Your task to perform on an android device: delete browsing data in the chrome app Image 0: 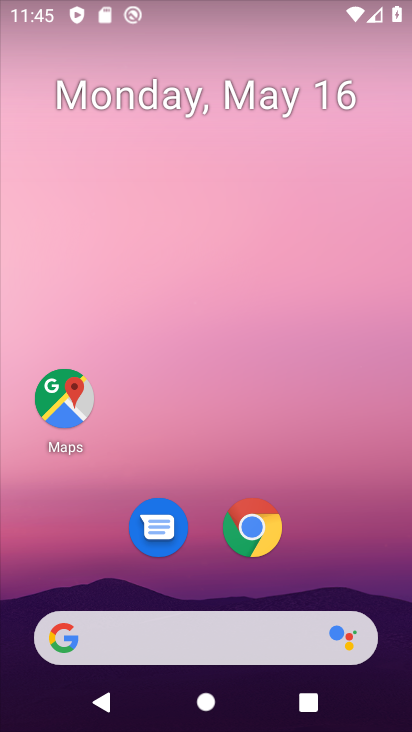
Step 0: click (251, 544)
Your task to perform on an android device: delete browsing data in the chrome app Image 1: 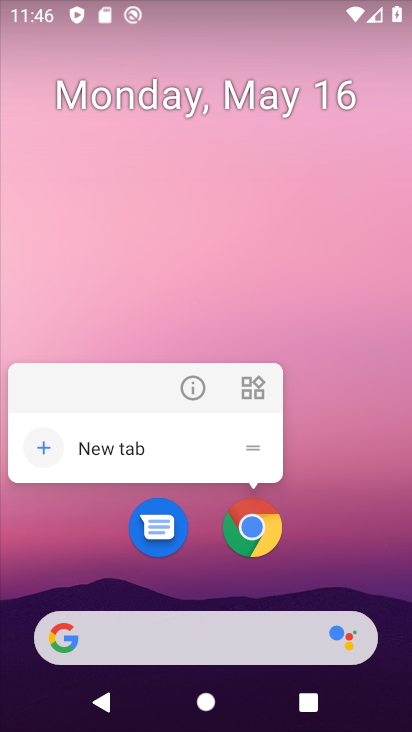
Step 1: click (251, 542)
Your task to perform on an android device: delete browsing data in the chrome app Image 2: 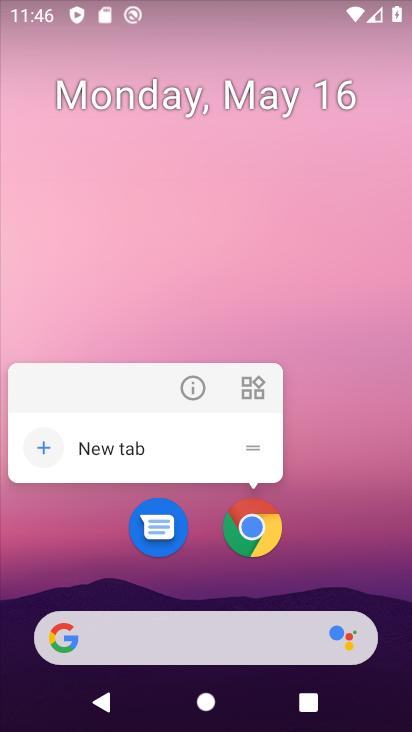
Step 2: click (251, 541)
Your task to perform on an android device: delete browsing data in the chrome app Image 3: 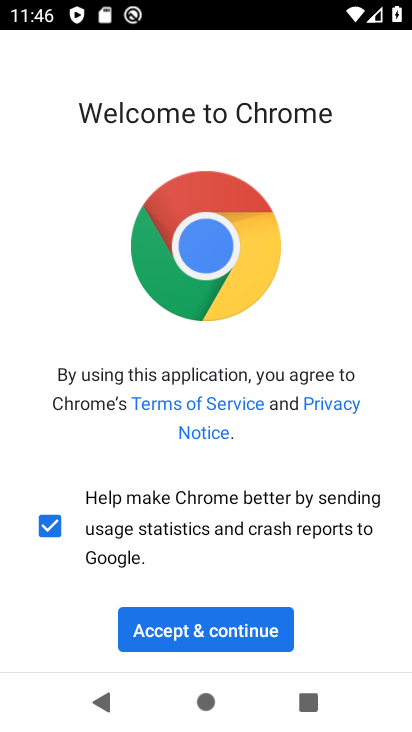
Step 3: click (252, 642)
Your task to perform on an android device: delete browsing data in the chrome app Image 4: 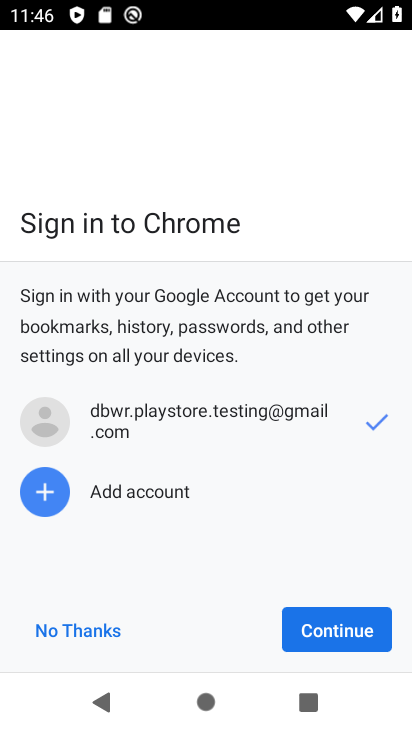
Step 4: click (323, 622)
Your task to perform on an android device: delete browsing data in the chrome app Image 5: 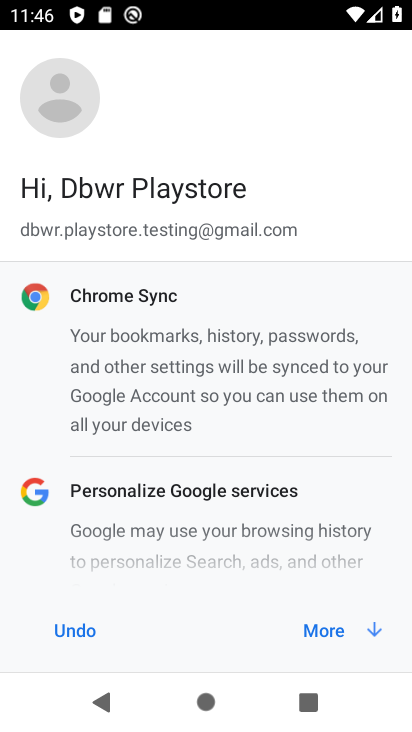
Step 5: click (338, 629)
Your task to perform on an android device: delete browsing data in the chrome app Image 6: 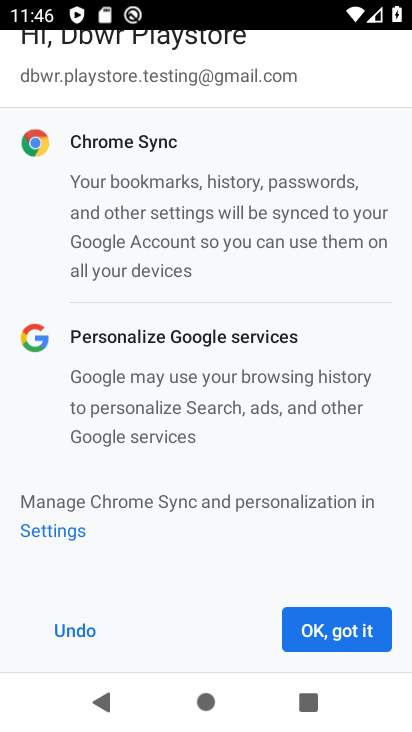
Step 6: click (338, 629)
Your task to perform on an android device: delete browsing data in the chrome app Image 7: 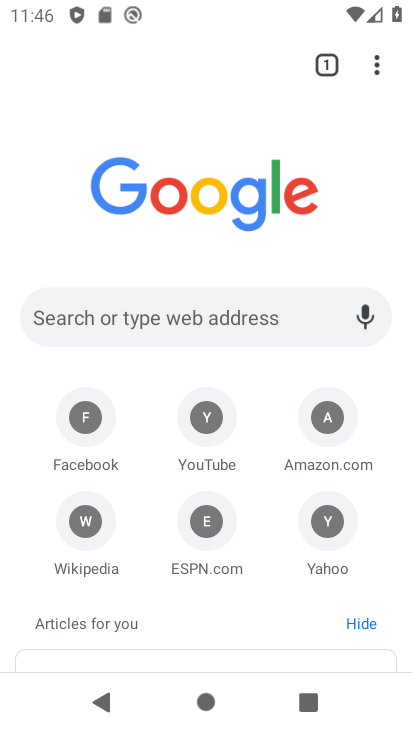
Step 7: drag from (387, 57) to (259, 564)
Your task to perform on an android device: delete browsing data in the chrome app Image 8: 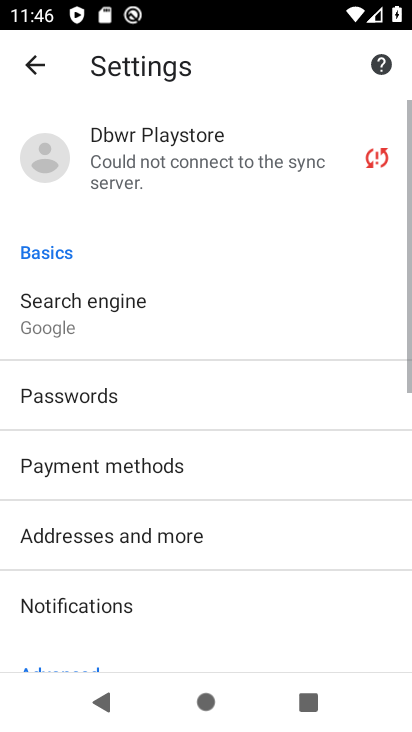
Step 8: drag from (197, 652) to (282, 325)
Your task to perform on an android device: delete browsing data in the chrome app Image 9: 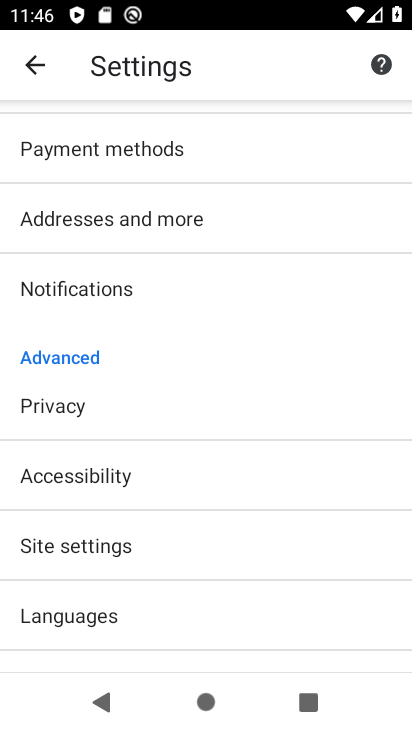
Step 9: click (137, 412)
Your task to perform on an android device: delete browsing data in the chrome app Image 10: 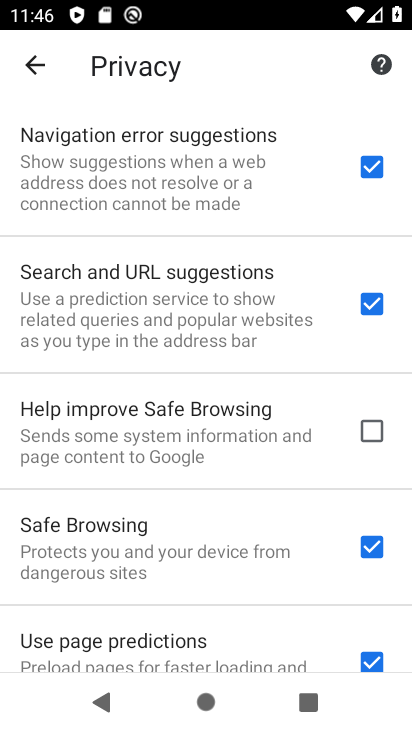
Step 10: drag from (74, 650) to (258, 47)
Your task to perform on an android device: delete browsing data in the chrome app Image 11: 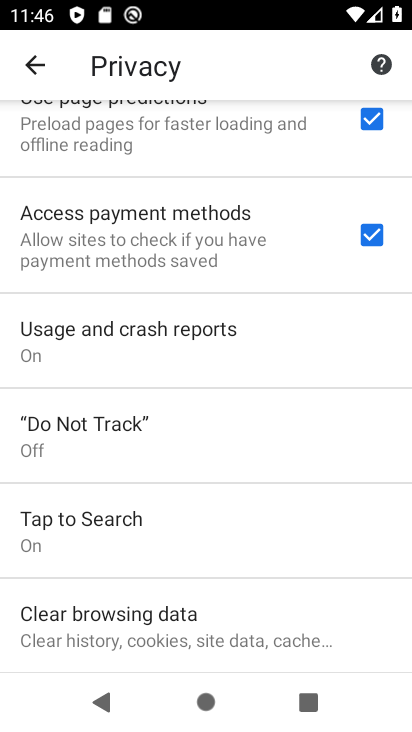
Step 11: click (183, 624)
Your task to perform on an android device: delete browsing data in the chrome app Image 12: 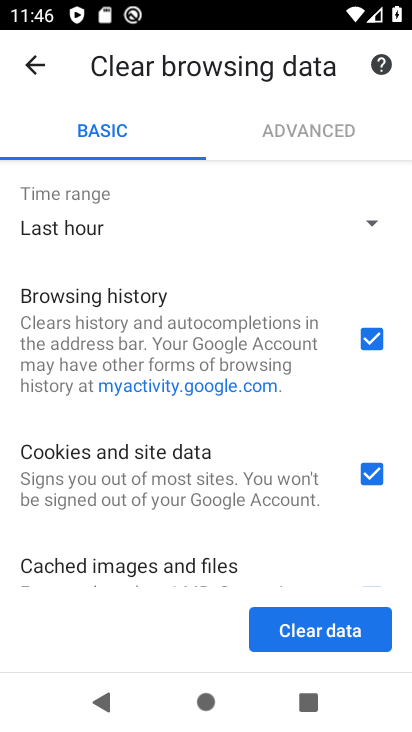
Step 12: click (327, 630)
Your task to perform on an android device: delete browsing data in the chrome app Image 13: 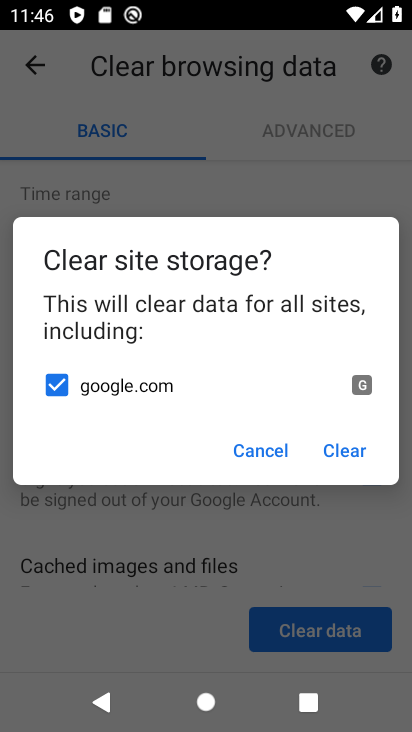
Step 13: click (330, 445)
Your task to perform on an android device: delete browsing data in the chrome app Image 14: 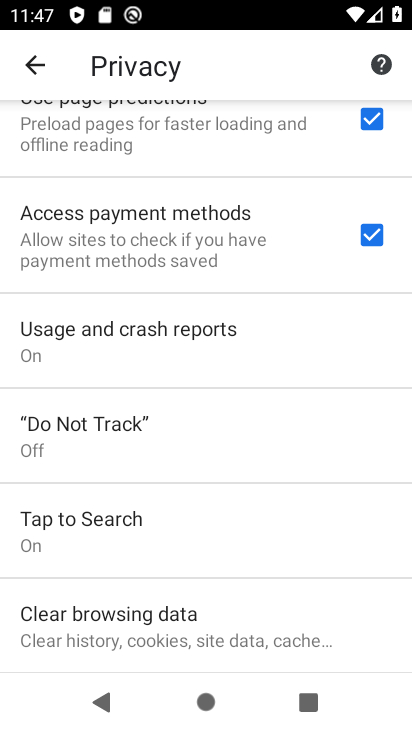
Step 14: task complete